Your task to perform on an android device: find photos in the google photos app Image 0: 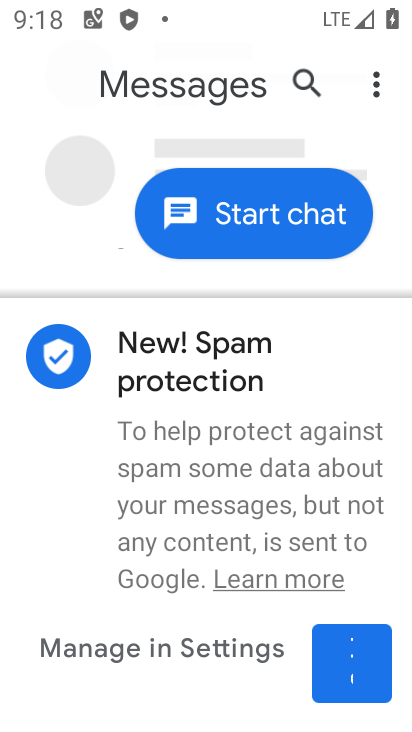
Step 0: press home button
Your task to perform on an android device: find photos in the google photos app Image 1: 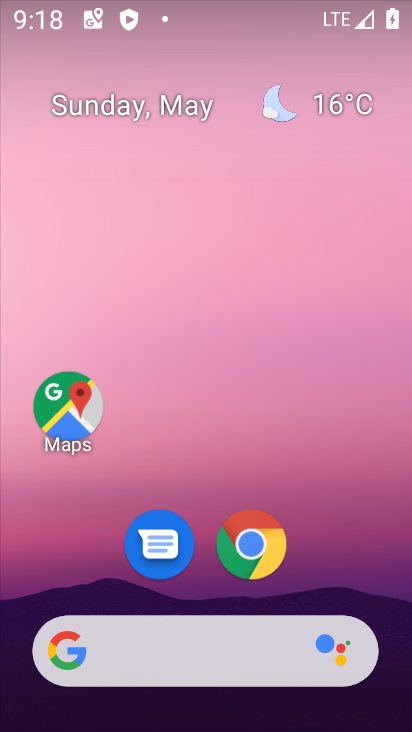
Step 1: drag from (307, 589) to (242, 296)
Your task to perform on an android device: find photos in the google photos app Image 2: 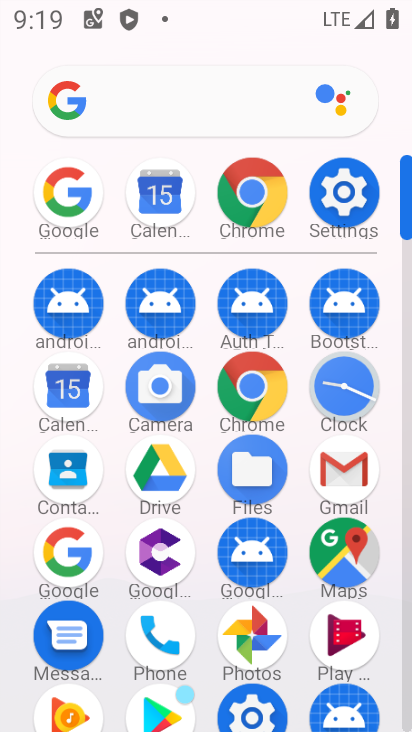
Step 2: click (249, 641)
Your task to perform on an android device: find photos in the google photos app Image 3: 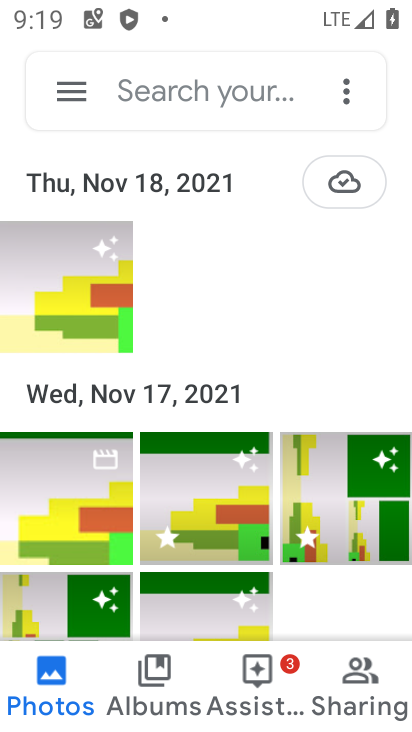
Step 3: task complete